Your task to perform on an android device: Open Google Chrome and click the shortcut for Amazon.com Image 0: 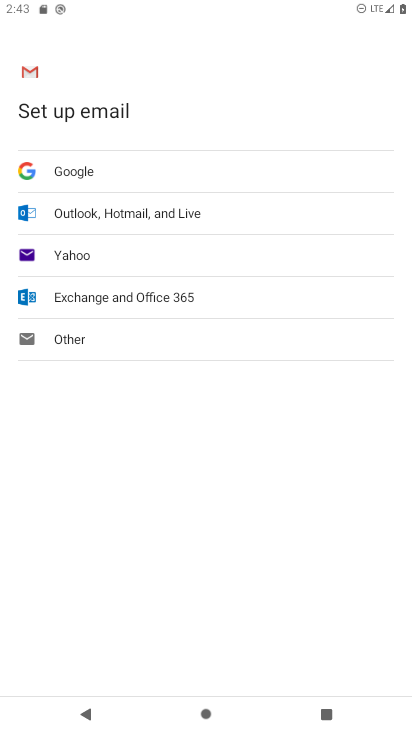
Step 0: press home button
Your task to perform on an android device: Open Google Chrome and click the shortcut for Amazon.com Image 1: 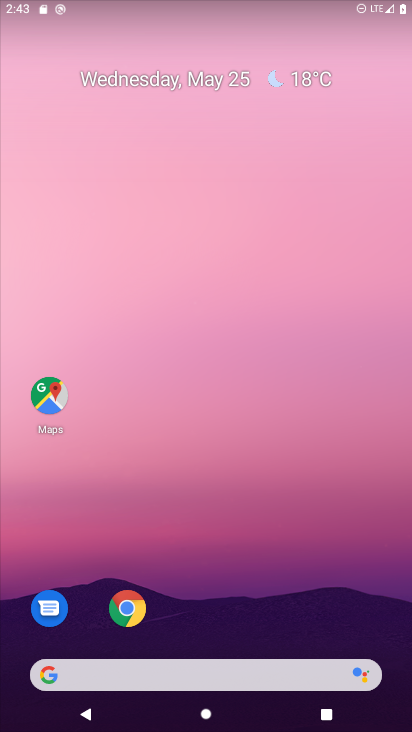
Step 1: click (129, 608)
Your task to perform on an android device: Open Google Chrome and click the shortcut for Amazon.com Image 2: 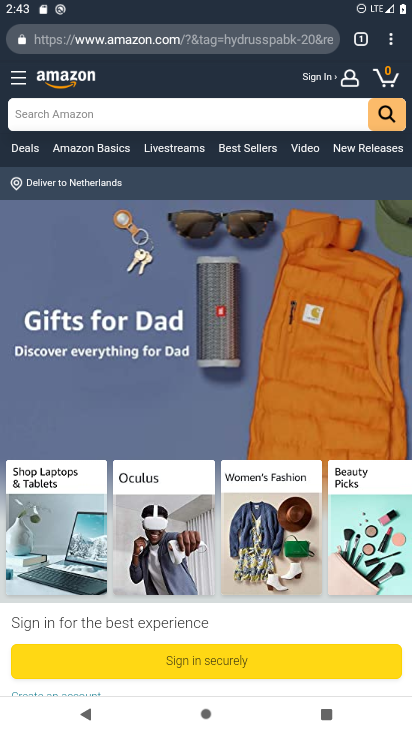
Step 2: click (387, 44)
Your task to perform on an android device: Open Google Chrome and click the shortcut for Amazon.com Image 3: 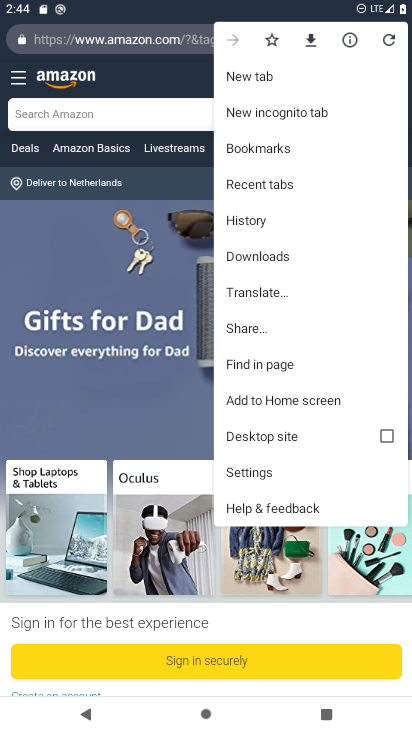
Step 3: click (228, 65)
Your task to perform on an android device: Open Google Chrome and click the shortcut for Amazon.com Image 4: 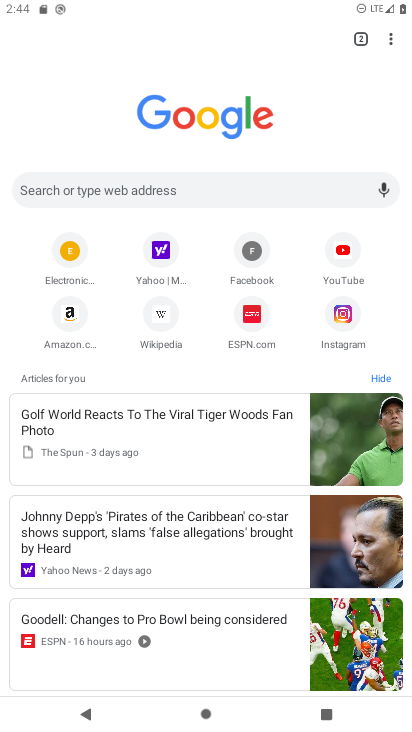
Step 4: click (67, 312)
Your task to perform on an android device: Open Google Chrome and click the shortcut for Amazon.com Image 5: 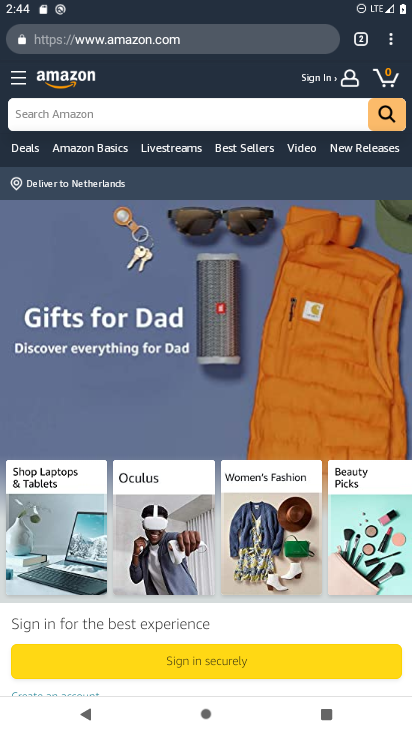
Step 5: task complete